Your task to perform on an android device: open the mobile data screen to see how much data has been used Image 0: 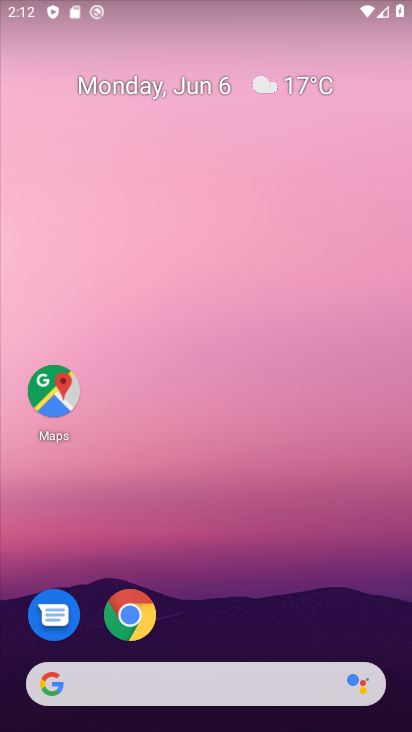
Step 0: drag from (221, 600) to (255, 173)
Your task to perform on an android device: open the mobile data screen to see how much data has been used Image 1: 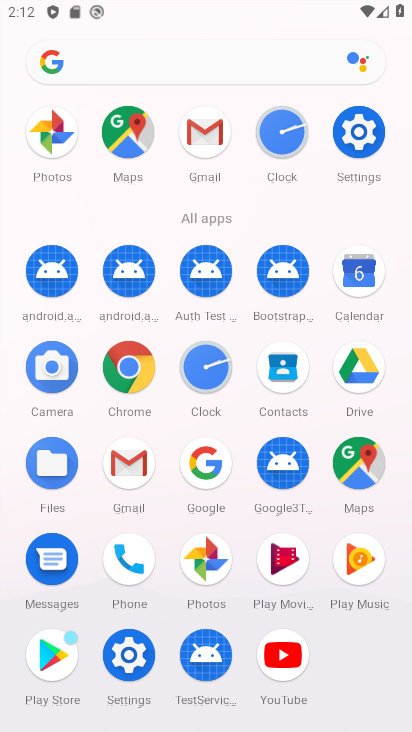
Step 1: click (371, 149)
Your task to perform on an android device: open the mobile data screen to see how much data has been used Image 2: 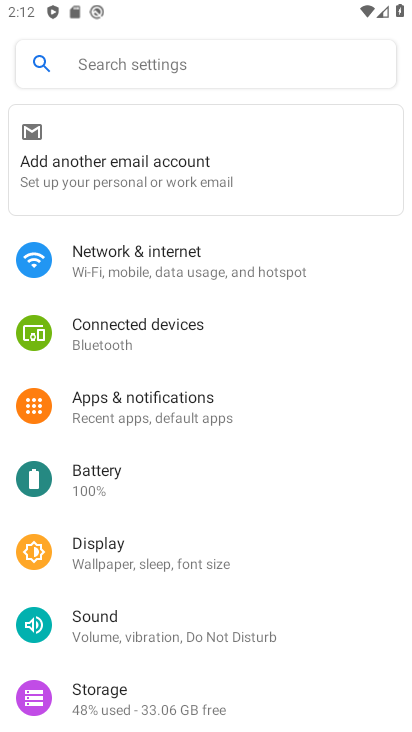
Step 2: click (176, 277)
Your task to perform on an android device: open the mobile data screen to see how much data has been used Image 3: 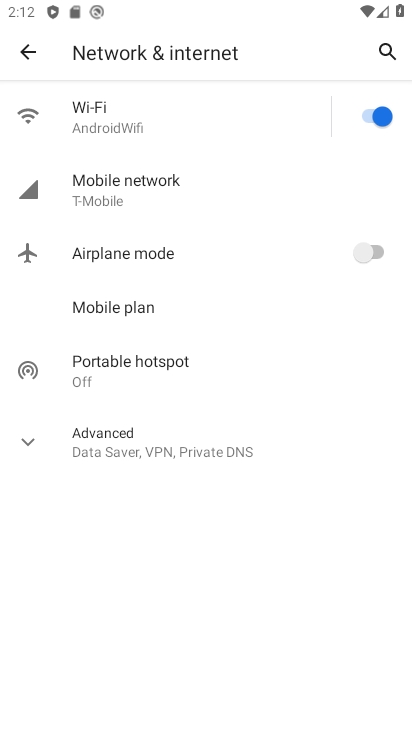
Step 3: click (145, 170)
Your task to perform on an android device: open the mobile data screen to see how much data has been used Image 4: 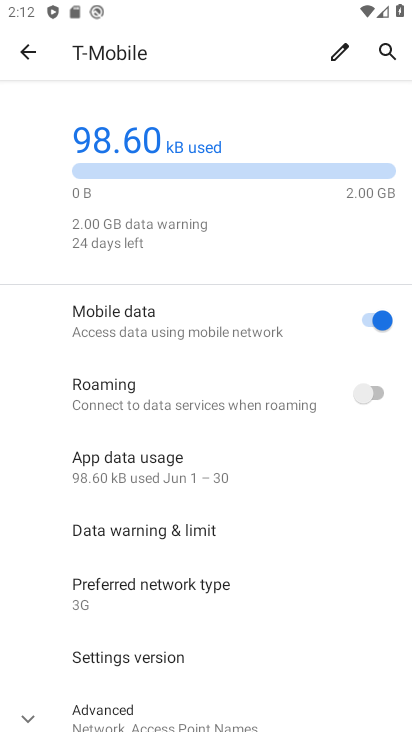
Step 4: click (166, 478)
Your task to perform on an android device: open the mobile data screen to see how much data has been used Image 5: 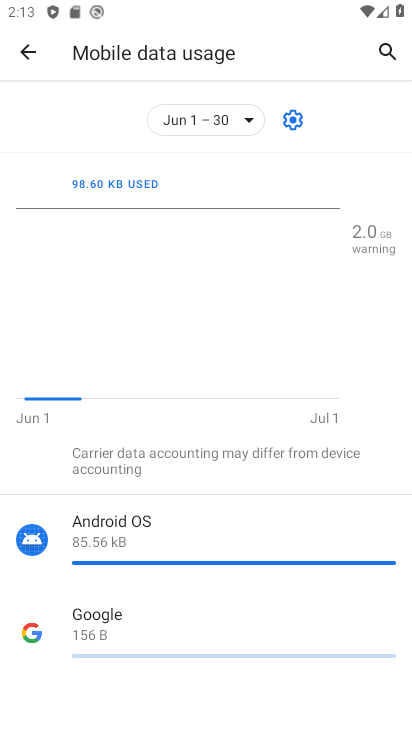
Step 5: task complete